Your task to perform on an android device: Search for jbl flip 4 on ebay.com, select the first entry, and add it to the cart. Image 0: 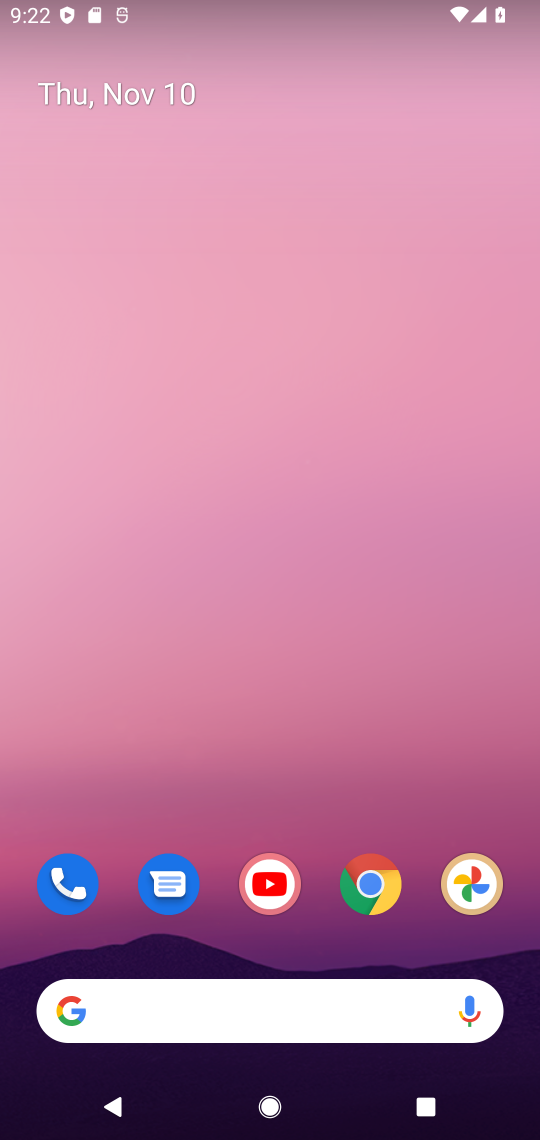
Step 0: click (243, 994)
Your task to perform on an android device: Search for jbl flip 4 on ebay.com, select the first entry, and add it to the cart. Image 1: 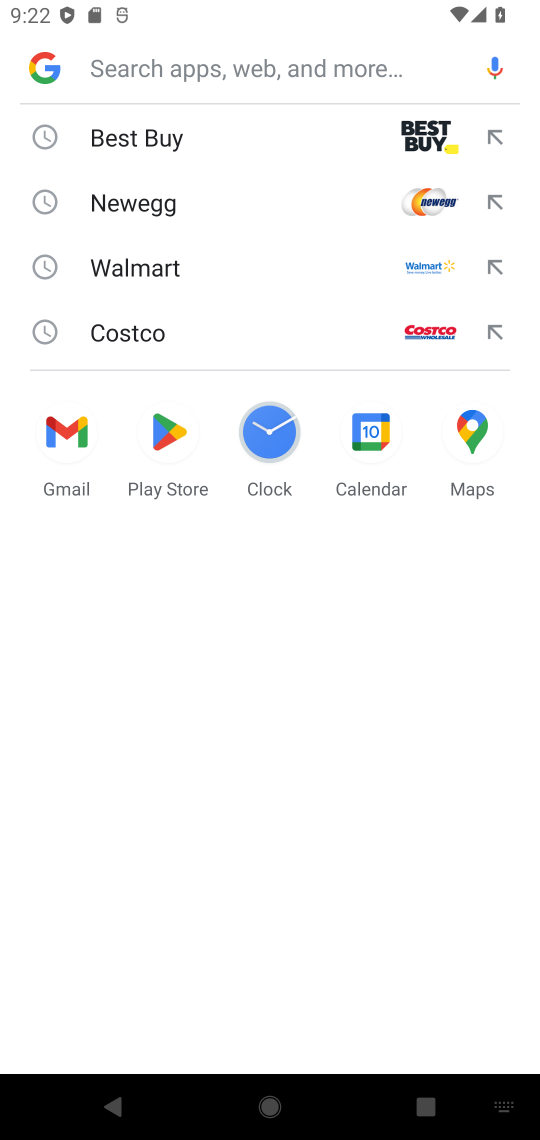
Step 1: type "ebay.com"
Your task to perform on an android device: Search for jbl flip 4 on ebay.com, select the first entry, and add it to the cart. Image 2: 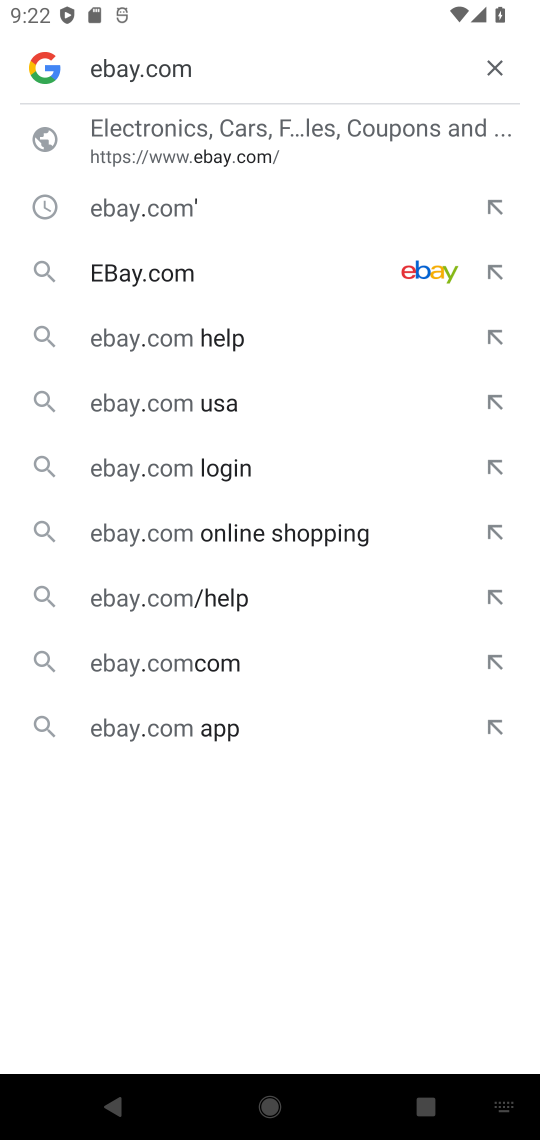
Step 2: click (167, 275)
Your task to perform on an android device: Search for jbl flip 4 on ebay.com, select the first entry, and add it to the cart. Image 3: 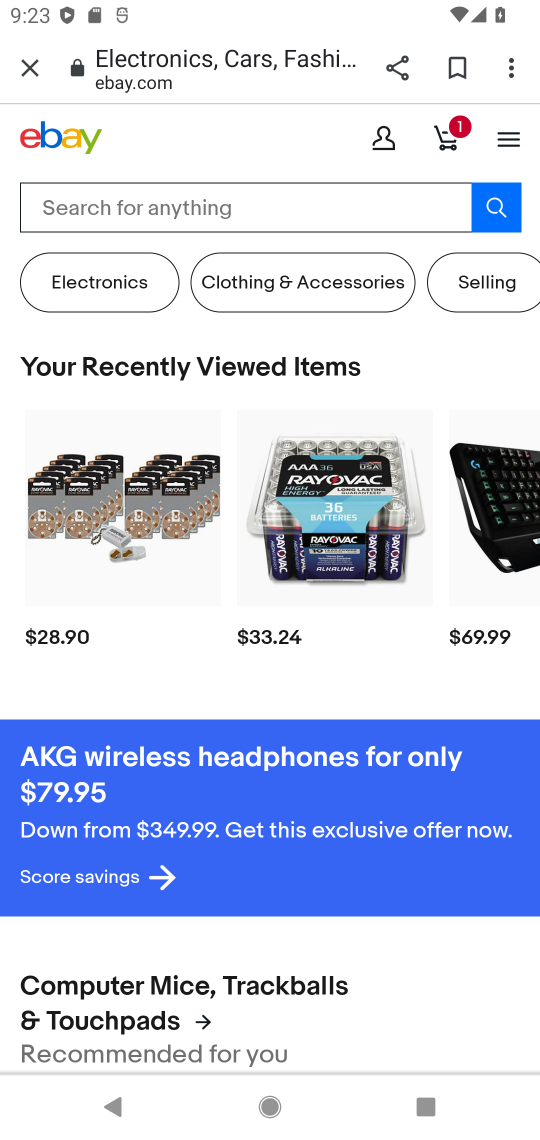
Step 3: click (155, 202)
Your task to perform on an android device: Search for jbl flip 4 on ebay.com, select the first entry, and add it to the cart. Image 4: 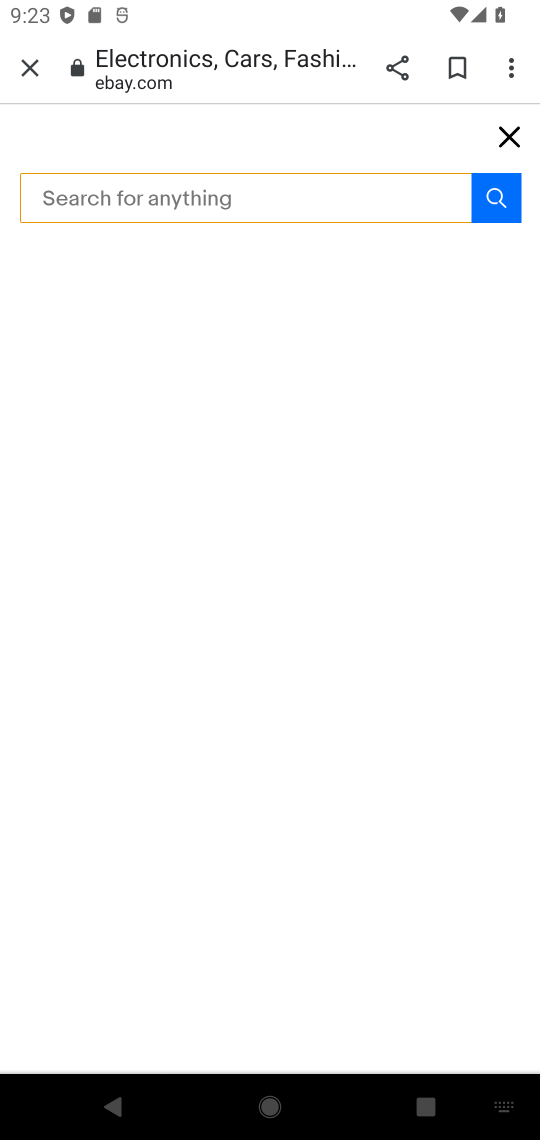
Step 4: type " jbl flip 4"
Your task to perform on an android device: Search for jbl flip 4 on ebay.com, select the first entry, and add it to the cart. Image 5: 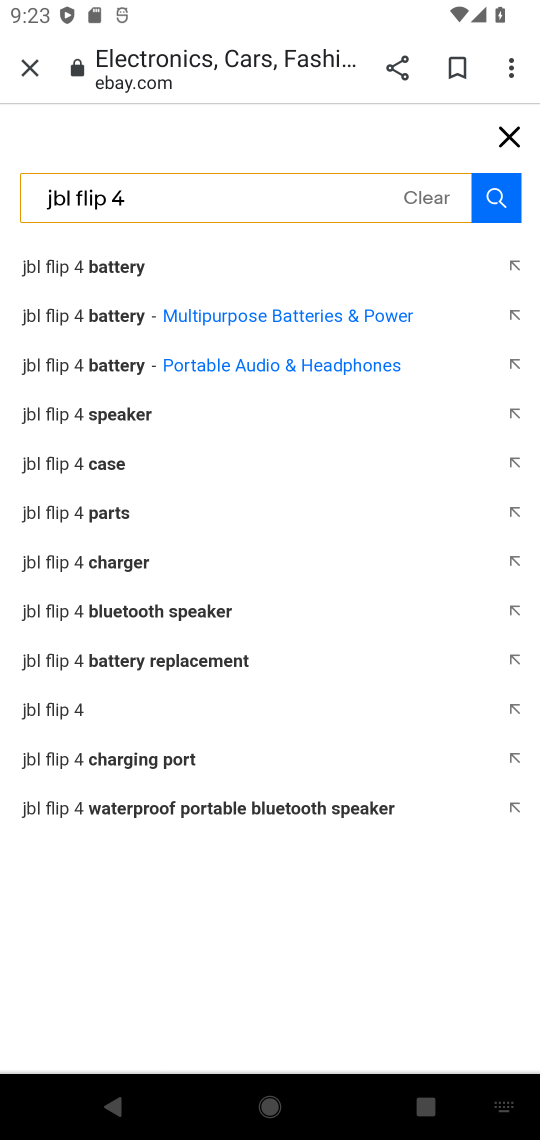
Step 5: click (48, 707)
Your task to perform on an android device: Search for jbl flip 4 on ebay.com, select the first entry, and add it to the cart. Image 6: 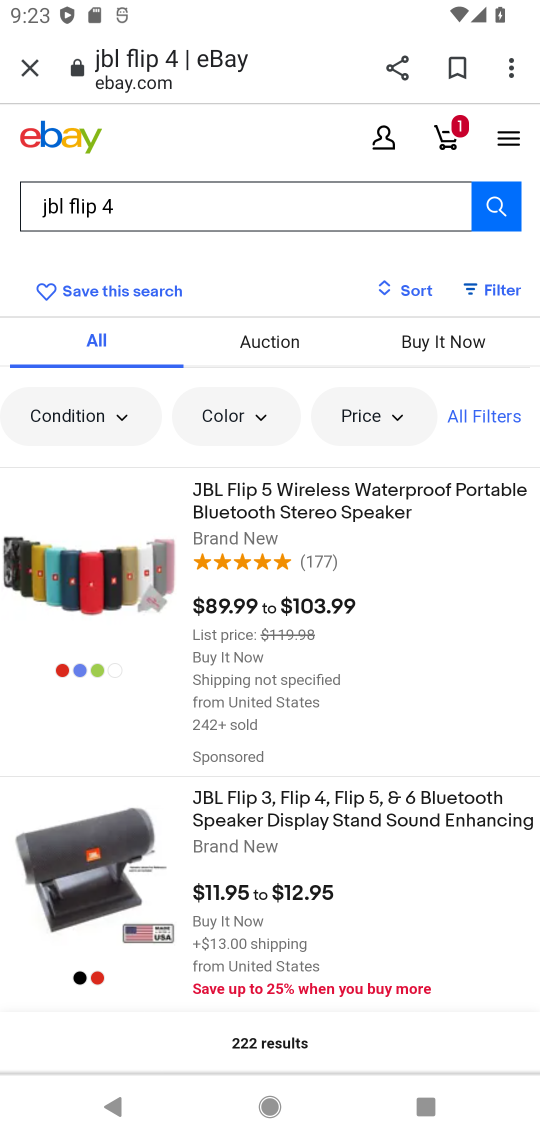
Step 6: click (234, 483)
Your task to perform on an android device: Search for jbl flip 4 on ebay.com, select the first entry, and add it to the cart. Image 7: 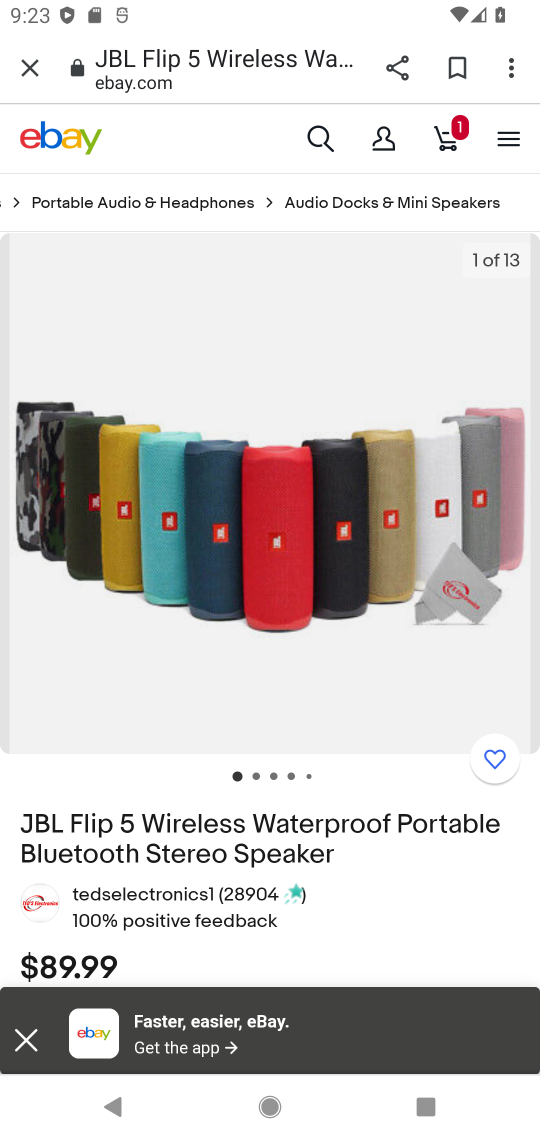
Step 7: drag from (306, 884) to (306, 415)
Your task to perform on an android device: Search for jbl flip 4 on ebay.com, select the first entry, and add it to the cart. Image 8: 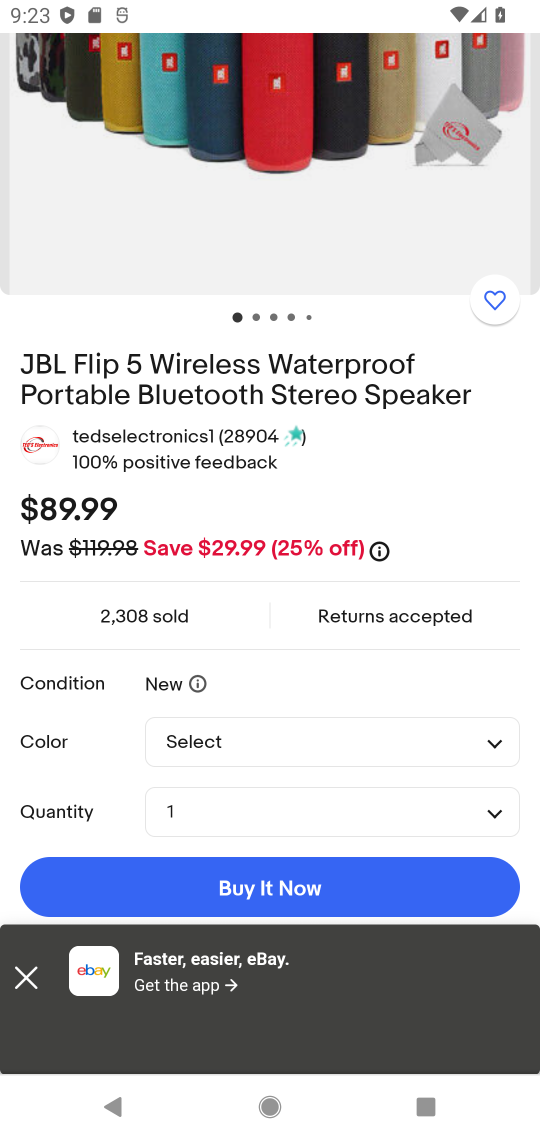
Step 8: drag from (287, 822) to (286, 628)
Your task to perform on an android device: Search for jbl flip 4 on ebay.com, select the first entry, and add it to the cart. Image 9: 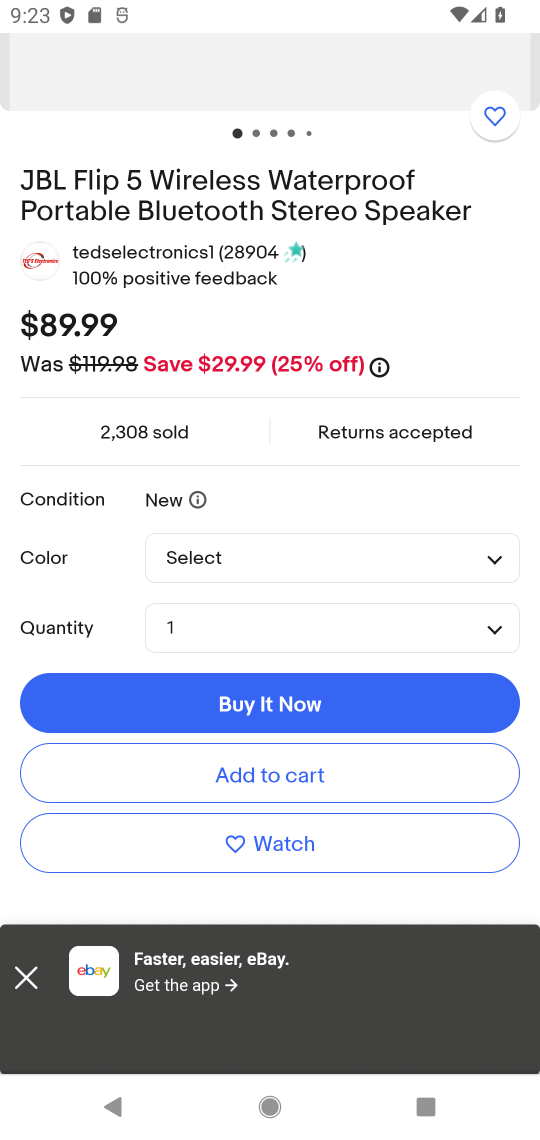
Step 9: click (236, 769)
Your task to perform on an android device: Search for jbl flip 4 on ebay.com, select the first entry, and add it to the cart. Image 10: 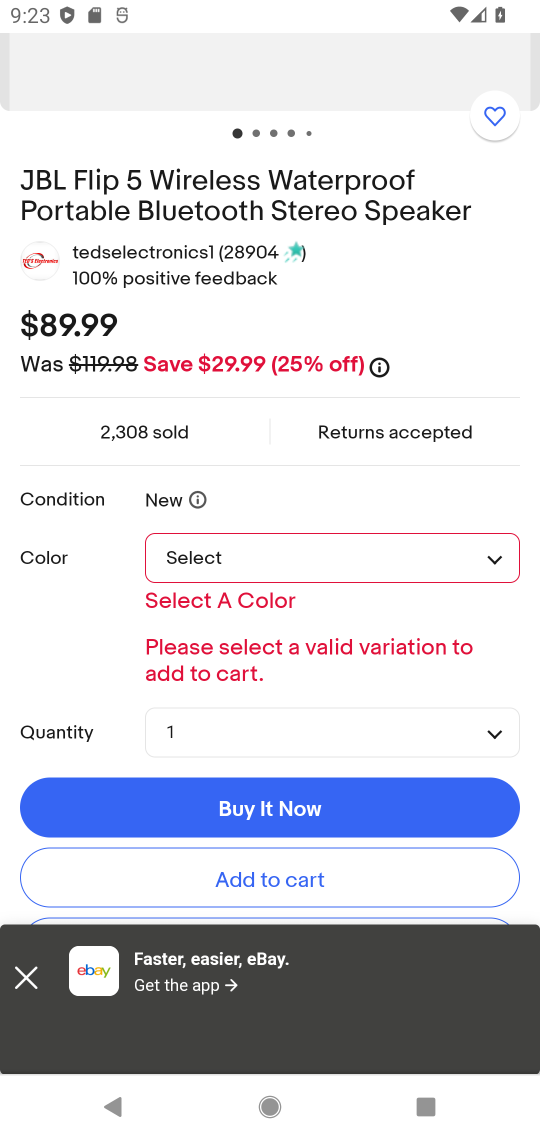
Step 10: click (487, 557)
Your task to perform on an android device: Search for jbl flip 4 on ebay.com, select the first entry, and add it to the cart. Image 11: 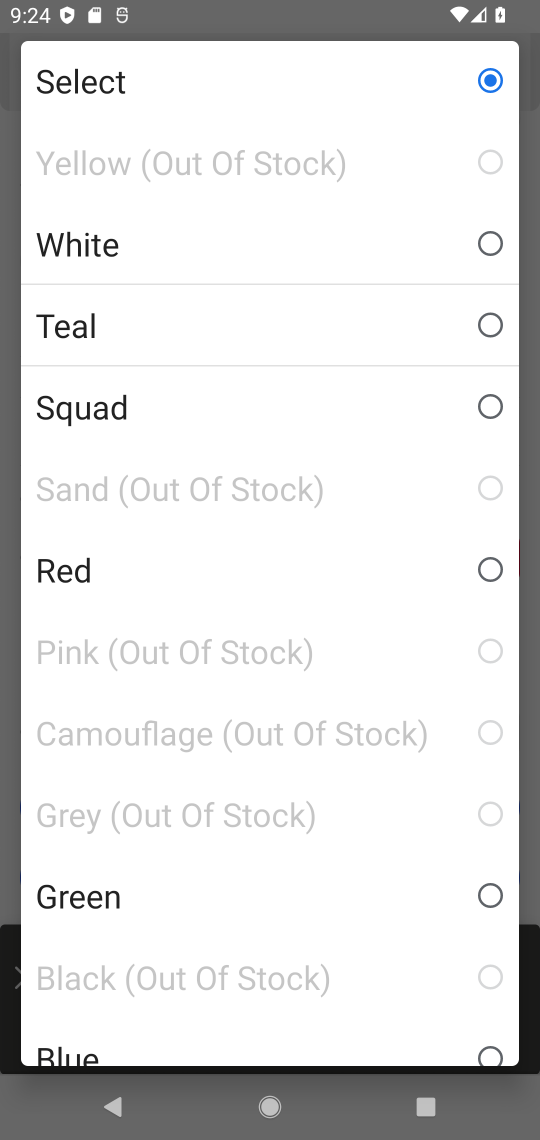
Step 11: click (494, 247)
Your task to perform on an android device: Search for jbl flip 4 on ebay.com, select the first entry, and add it to the cart. Image 12: 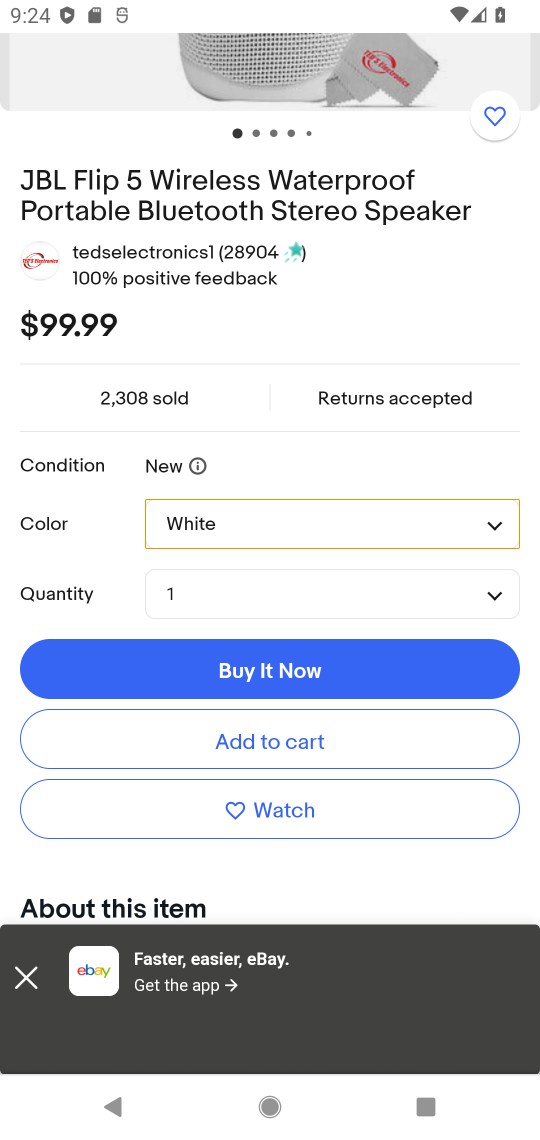
Step 12: click (276, 742)
Your task to perform on an android device: Search for jbl flip 4 on ebay.com, select the first entry, and add it to the cart. Image 13: 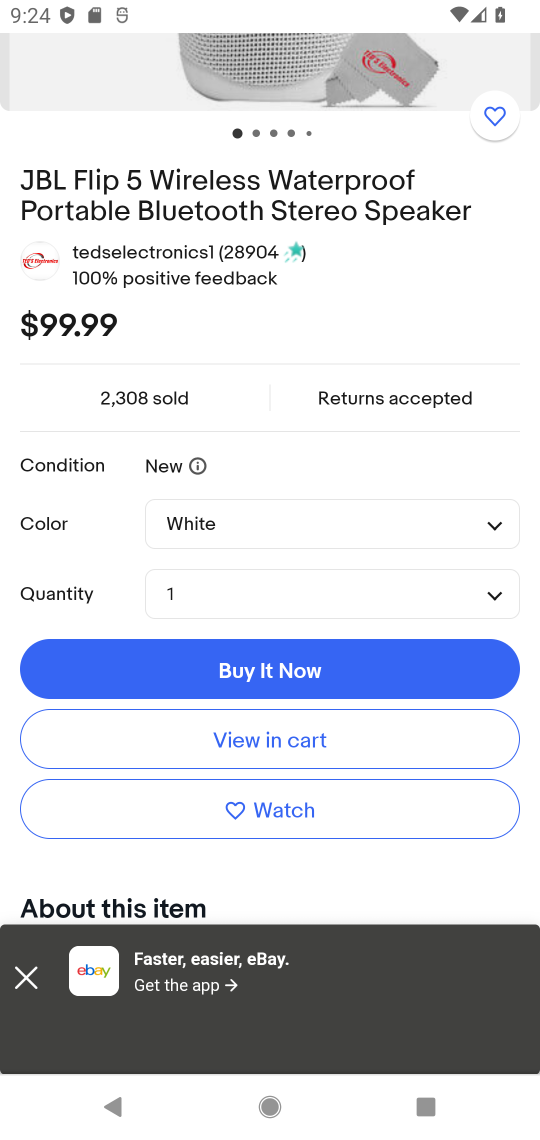
Step 13: task complete